Your task to perform on an android device: refresh tabs in the chrome app Image 0: 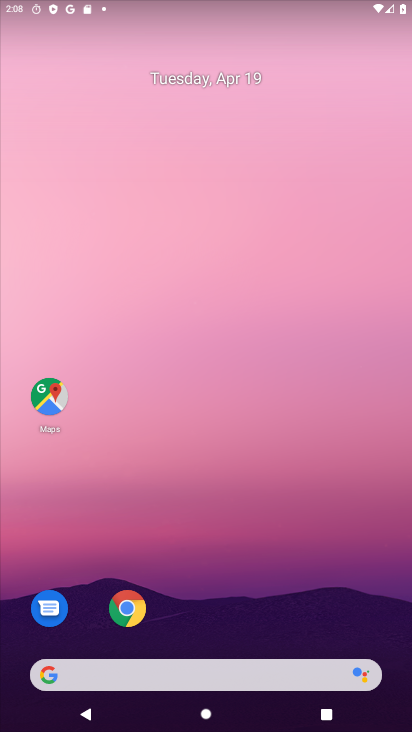
Step 0: drag from (301, 623) to (196, 7)
Your task to perform on an android device: refresh tabs in the chrome app Image 1: 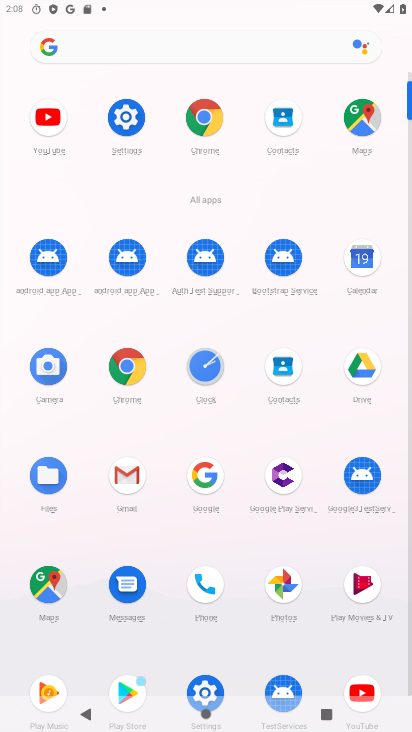
Step 1: click (215, 121)
Your task to perform on an android device: refresh tabs in the chrome app Image 2: 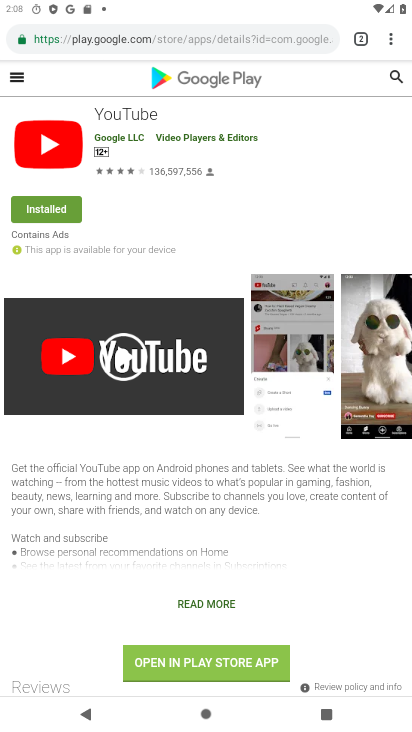
Step 2: click (390, 33)
Your task to perform on an android device: refresh tabs in the chrome app Image 3: 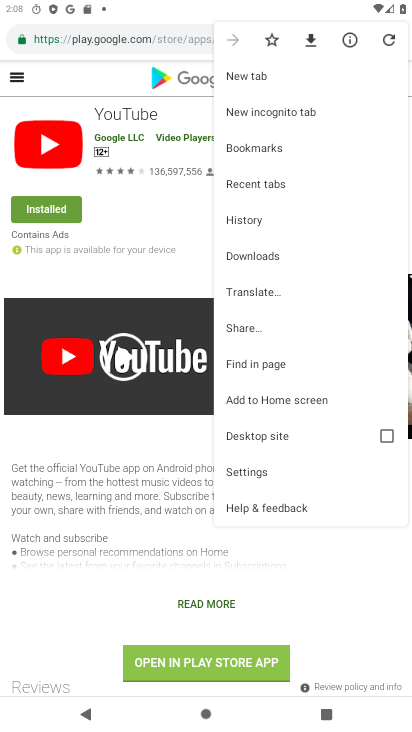
Step 3: click (377, 39)
Your task to perform on an android device: refresh tabs in the chrome app Image 4: 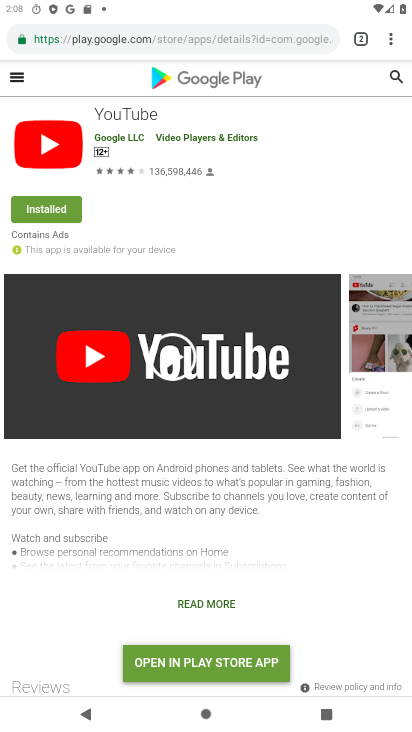
Step 4: task complete